Your task to perform on an android device: Play the latest video from the New York Times Image 0: 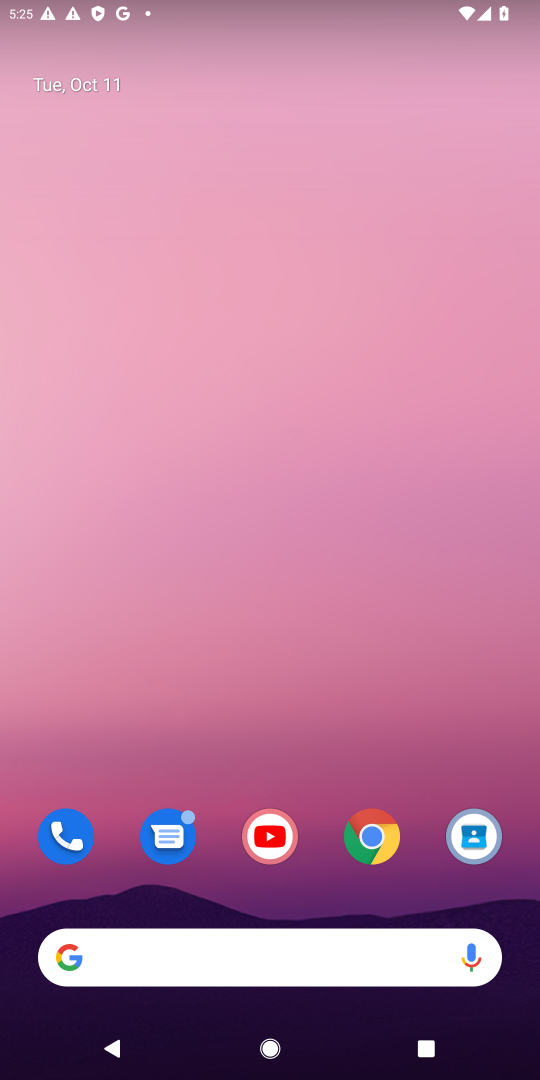
Step 0: click (264, 832)
Your task to perform on an android device: Play the latest video from the New York Times Image 1: 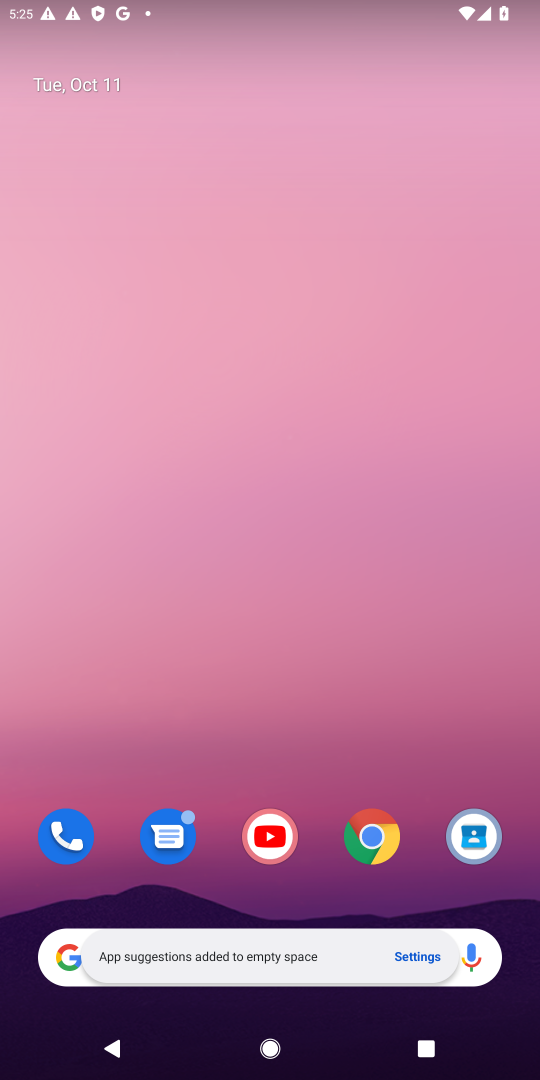
Step 1: click (267, 840)
Your task to perform on an android device: Play the latest video from the New York Times Image 2: 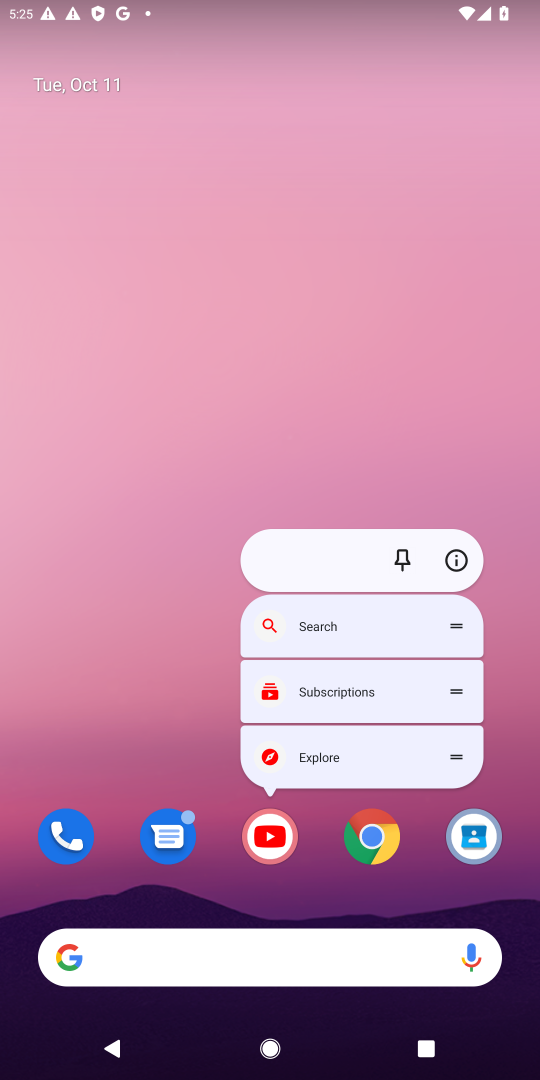
Step 2: click (267, 840)
Your task to perform on an android device: Play the latest video from the New York Times Image 3: 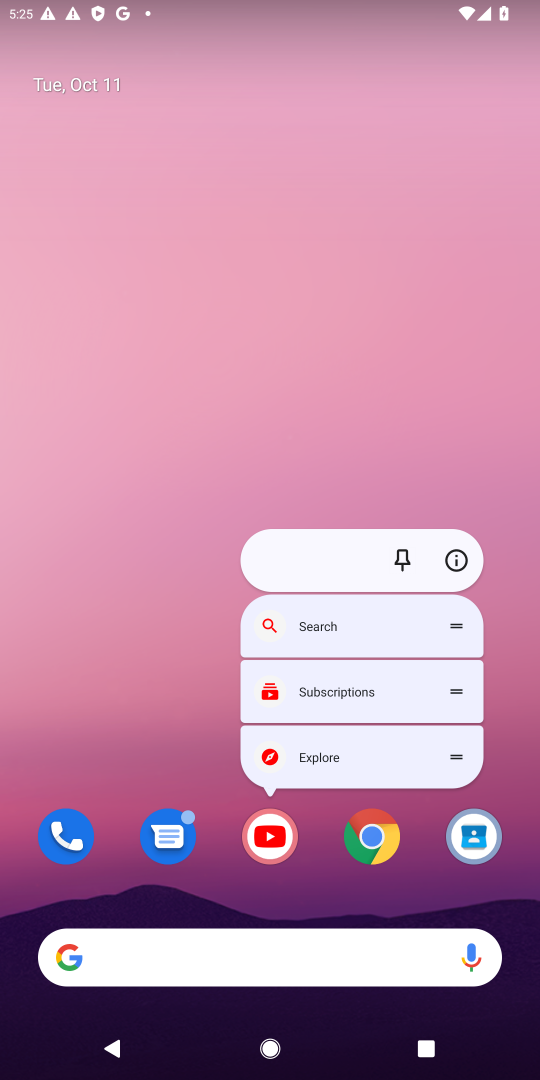
Step 3: click (267, 840)
Your task to perform on an android device: Play the latest video from the New York Times Image 4: 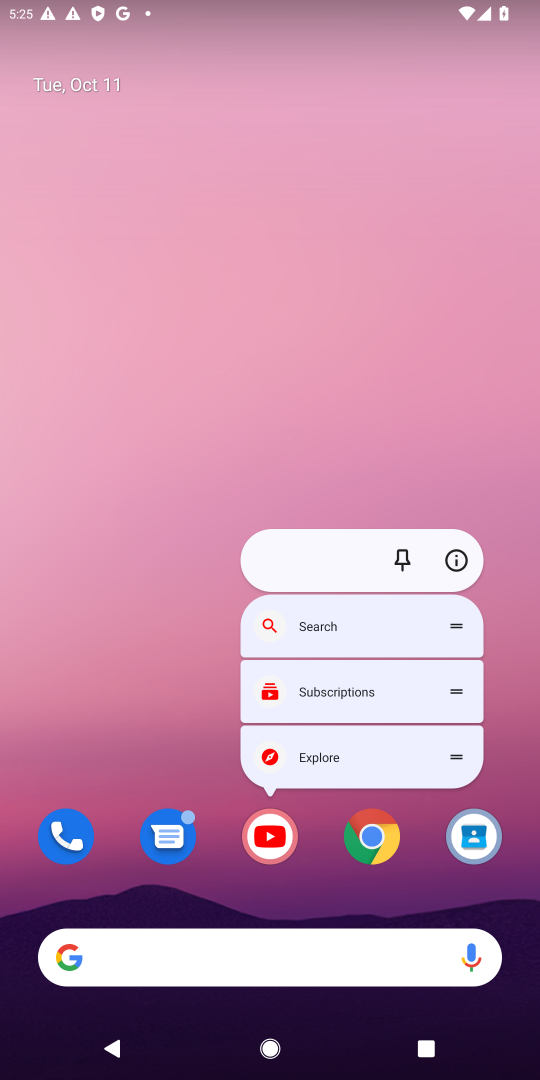
Step 4: click (267, 840)
Your task to perform on an android device: Play the latest video from the New York Times Image 5: 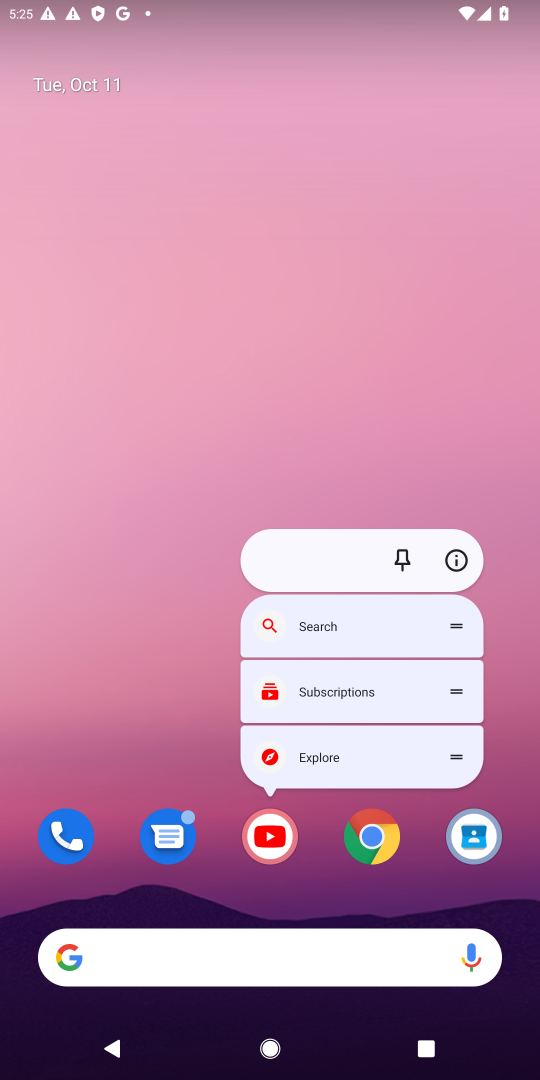
Step 5: click (278, 829)
Your task to perform on an android device: Play the latest video from the New York Times Image 6: 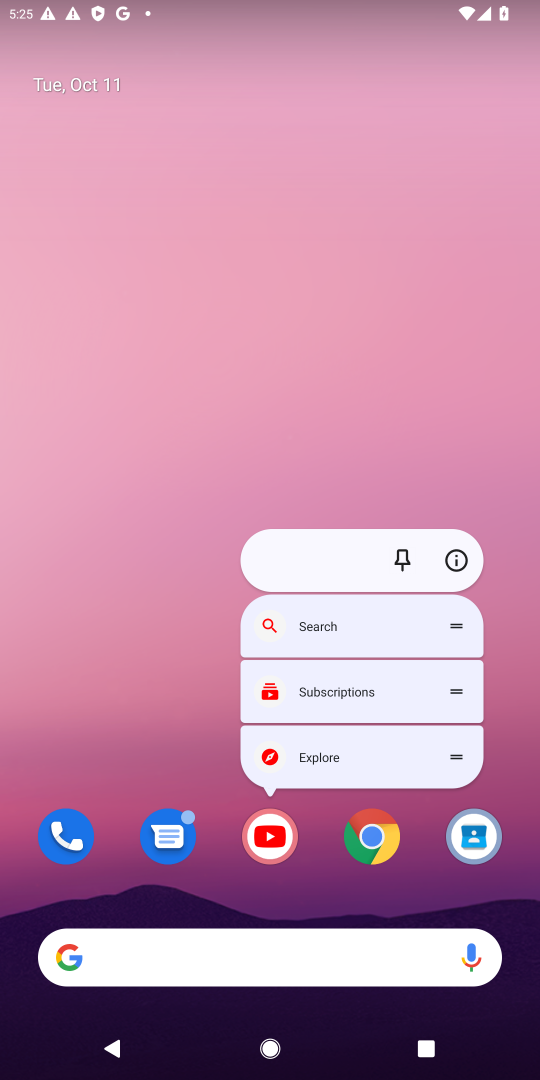
Step 6: click (271, 840)
Your task to perform on an android device: Play the latest video from the New York Times Image 7: 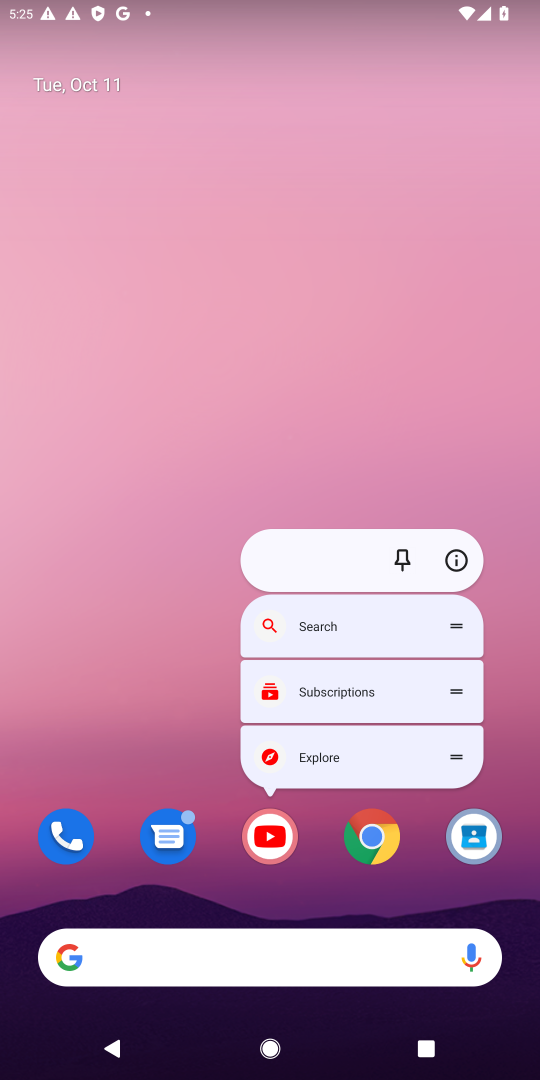
Step 7: click (271, 840)
Your task to perform on an android device: Play the latest video from the New York Times Image 8: 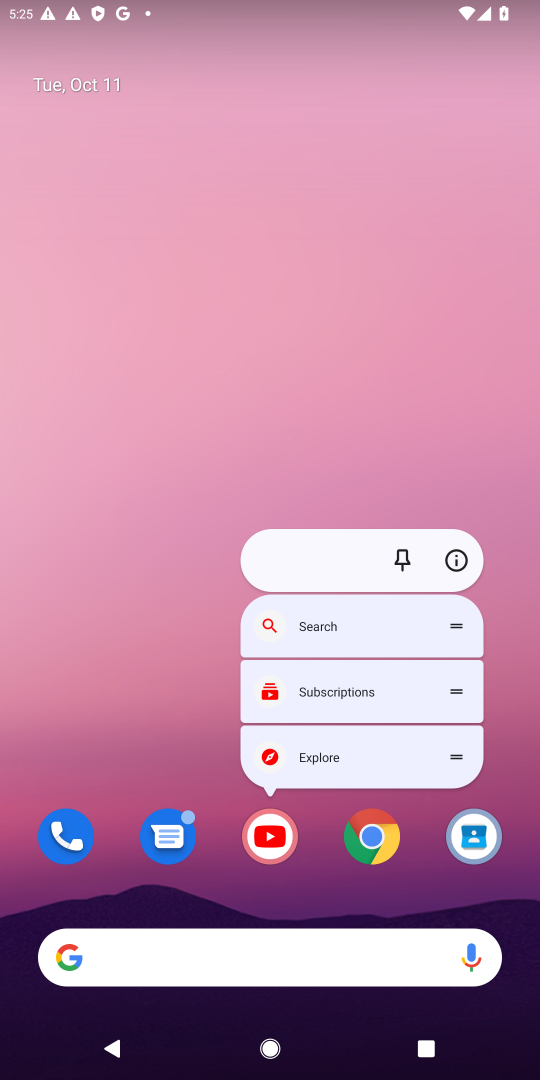
Step 8: click (271, 842)
Your task to perform on an android device: Play the latest video from the New York Times Image 9: 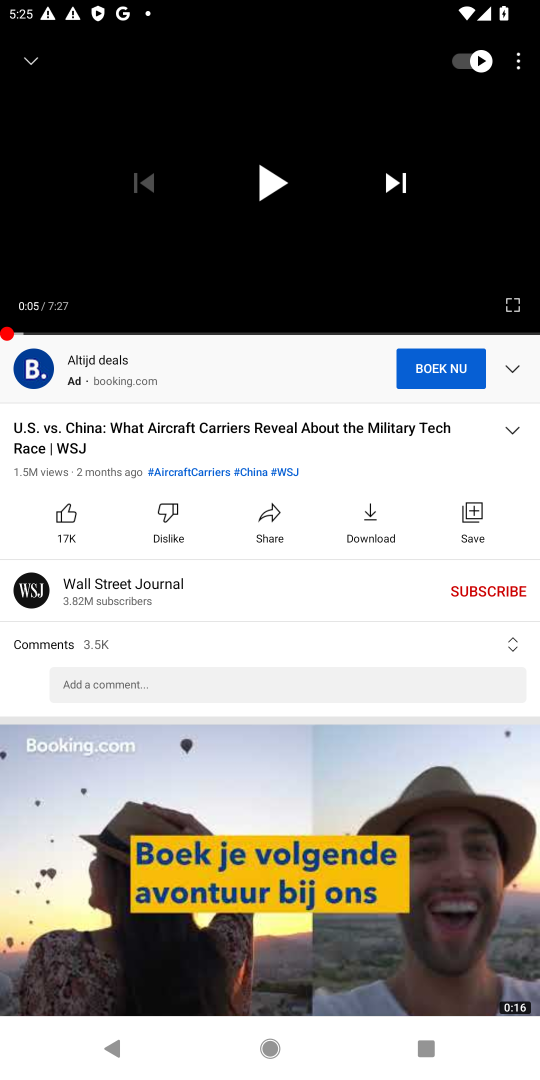
Step 9: press back button
Your task to perform on an android device: Play the latest video from the New York Times Image 10: 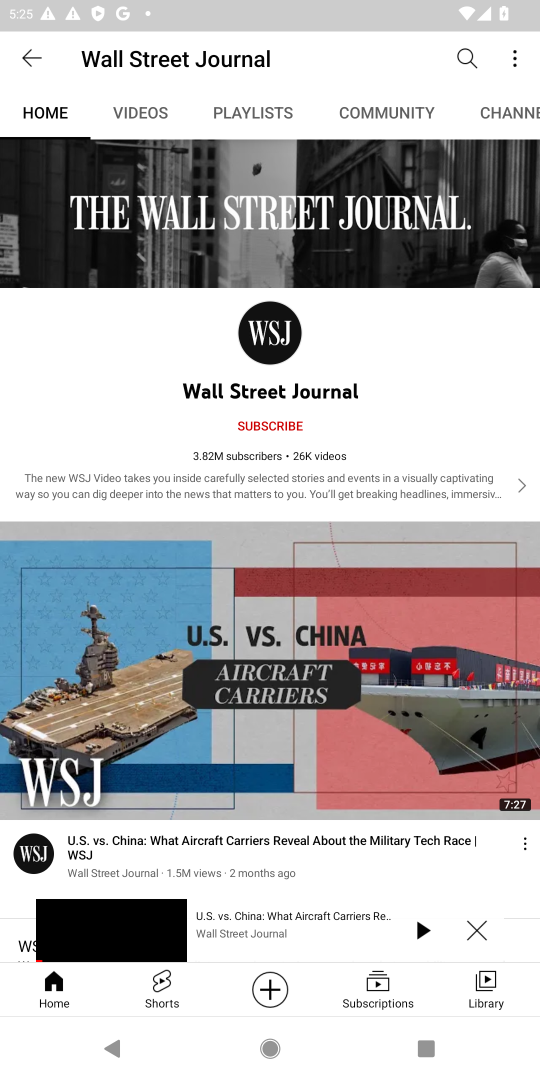
Step 10: click (463, 51)
Your task to perform on an android device: Play the latest video from the New York Times Image 11: 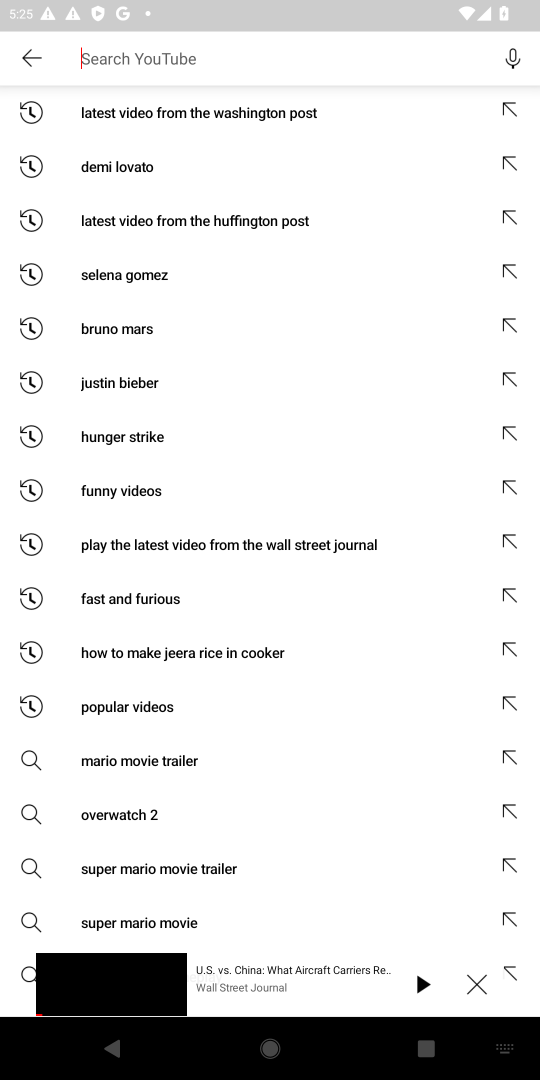
Step 11: type "video from the New York Times"
Your task to perform on an android device: Play the latest video from the New York Times Image 12: 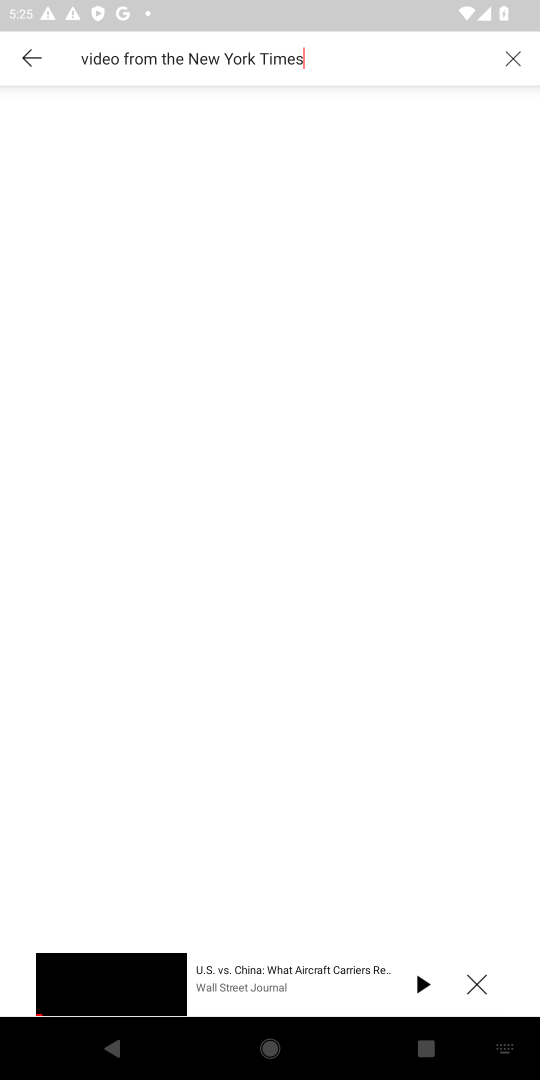
Step 12: press enter
Your task to perform on an android device: Play the latest video from the New York Times Image 13: 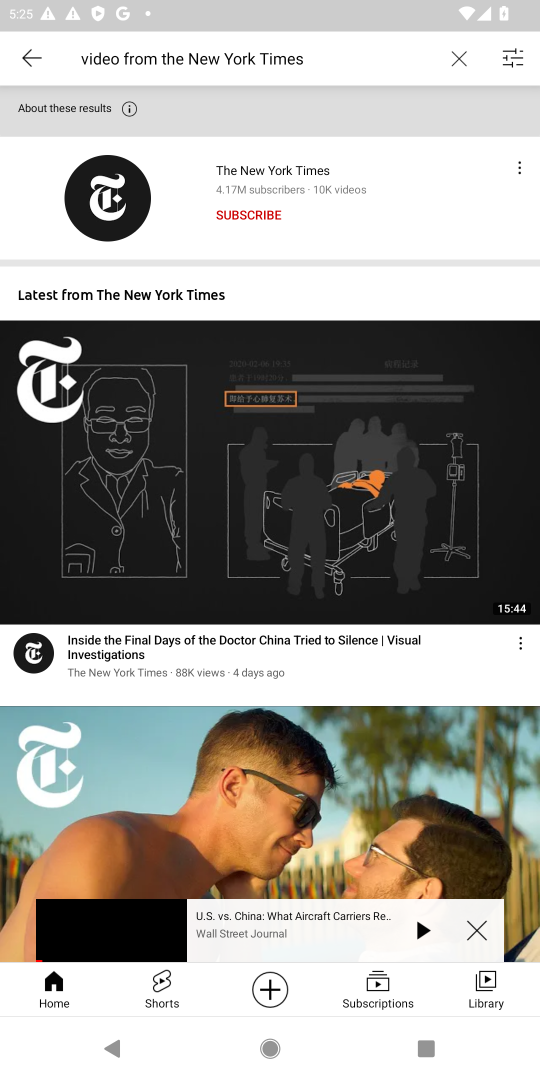
Step 13: click (474, 928)
Your task to perform on an android device: Play the latest video from the New York Times Image 14: 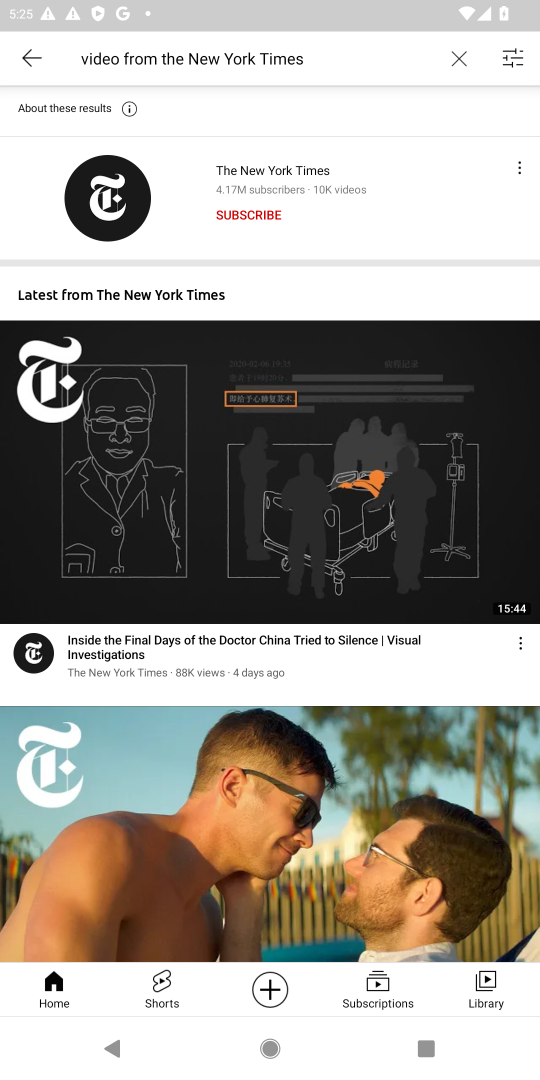
Step 14: click (306, 473)
Your task to perform on an android device: Play the latest video from the New York Times Image 15: 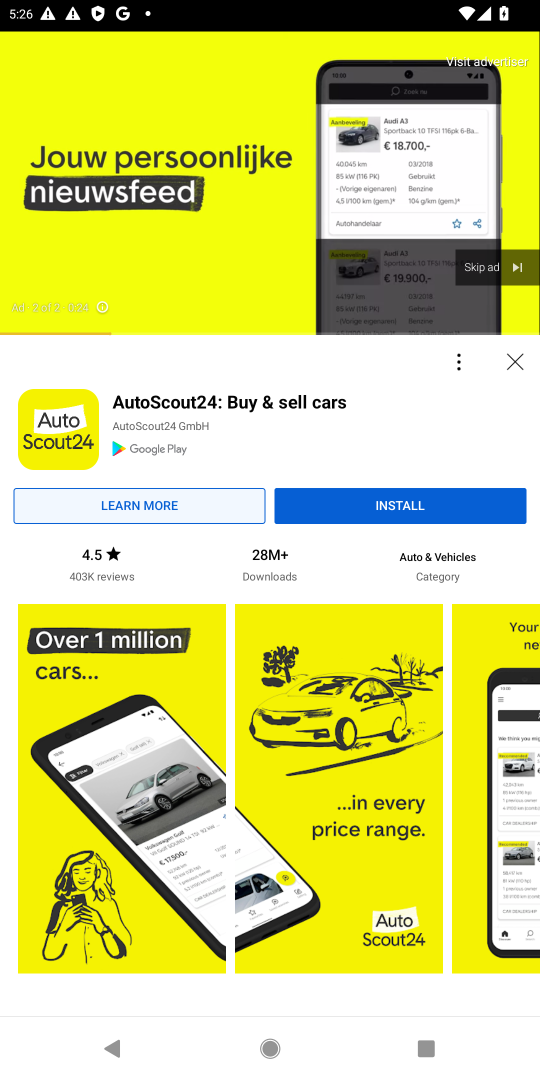
Step 15: click (479, 270)
Your task to perform on an android device: Play the latest video from the New York Times Image 16: 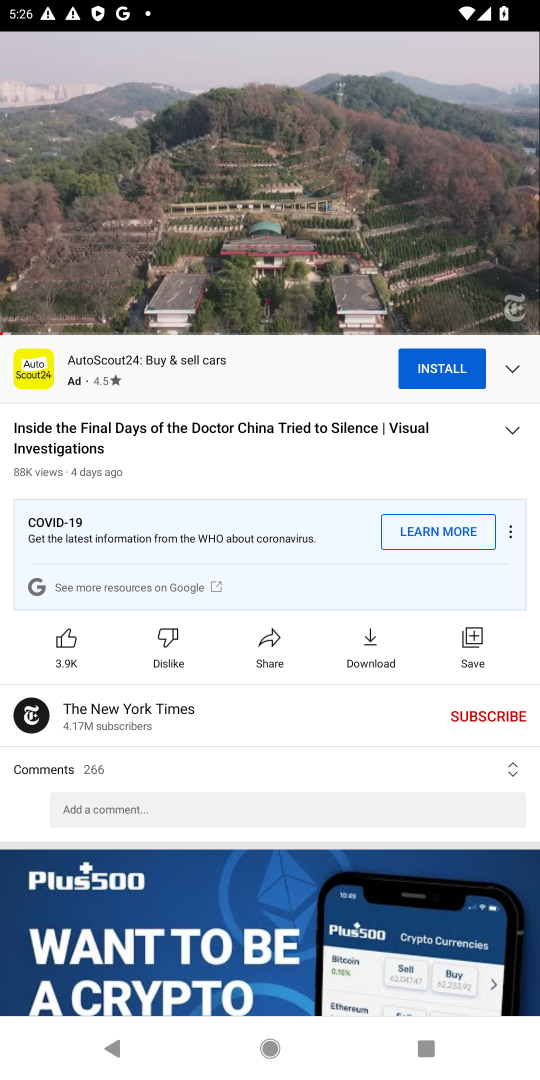
Step 16: click (281, 123)
Your task to perform on an android device: Play the latest video from the New York Times Image 17: 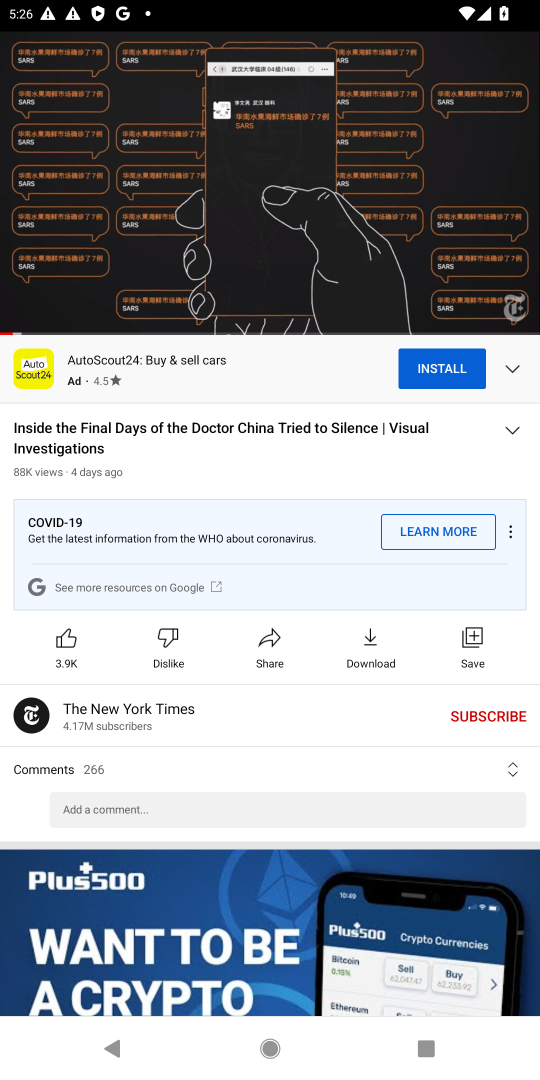
Step 17: click (258, 155)
Your task to perform on an android device: Play the latest video from the New York Times Image 18: 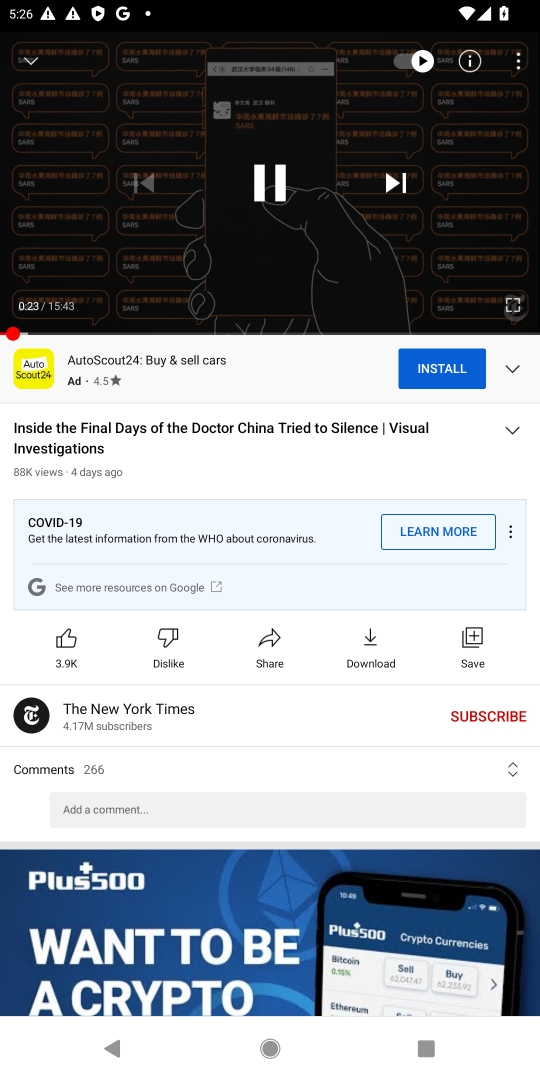
Step 18: click (273, 180)
Your task to perform on an android device: Play the latest video from the New York Times Image 19: 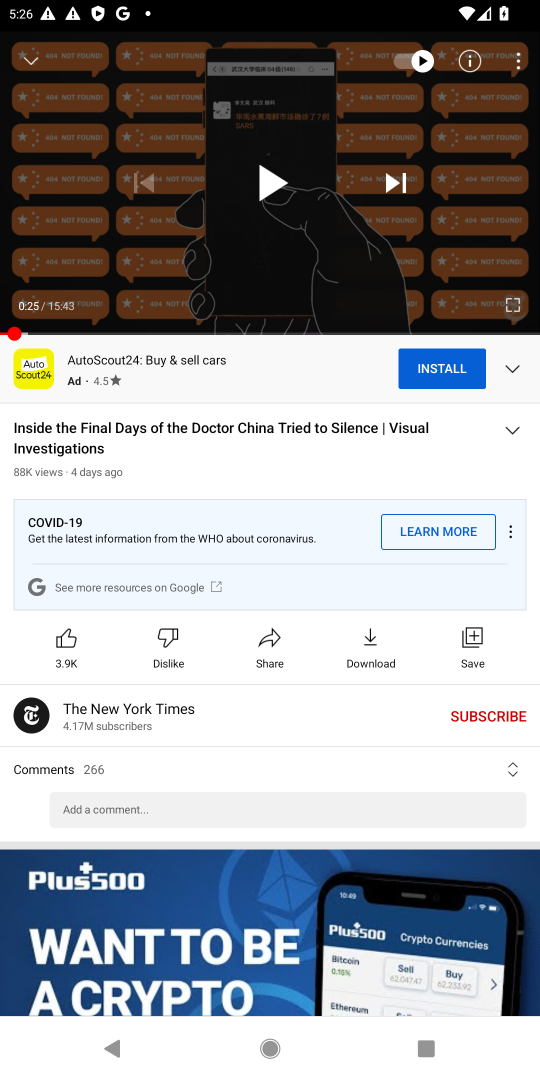
Step 19: task complete